Your task to perform on an android device: turn smart compose on in the gmail app Image 0: 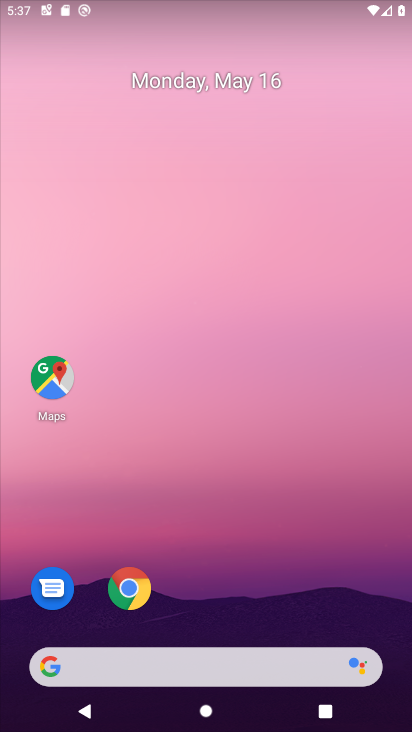
Step 0: drag from (273, 564) to (231, 174)
Your task to perform on an android device: turn smart compose on in the gmail app Image 1: 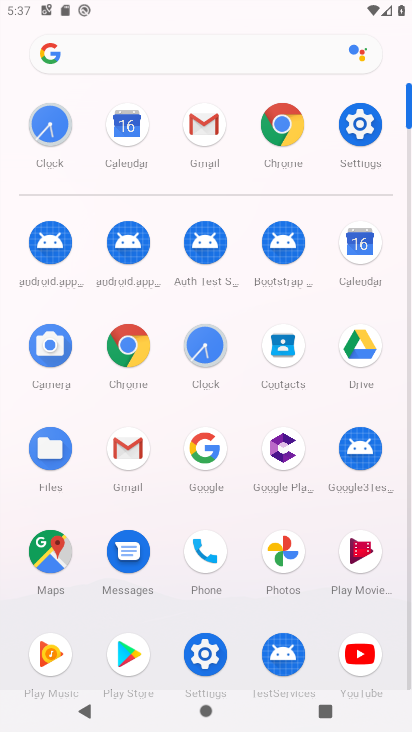
Step 1: click (136, 432)
Your task to perform on an android device: turn smart compose on in the gmail app Image 2: 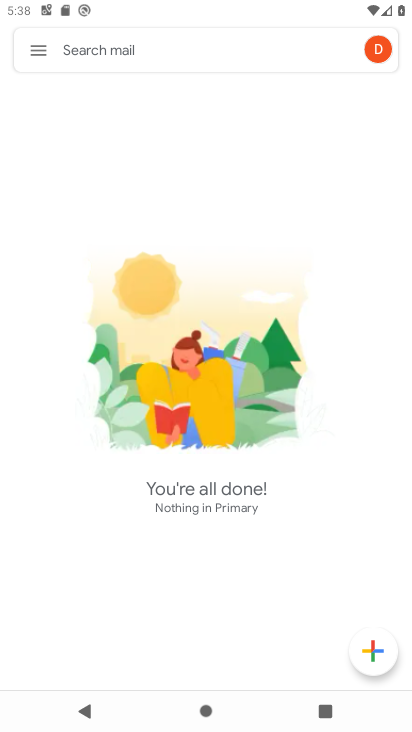
Step 2: click (36, 43)
Your task to perform on an android device: turn smart compose on in the gmail app Image 3: 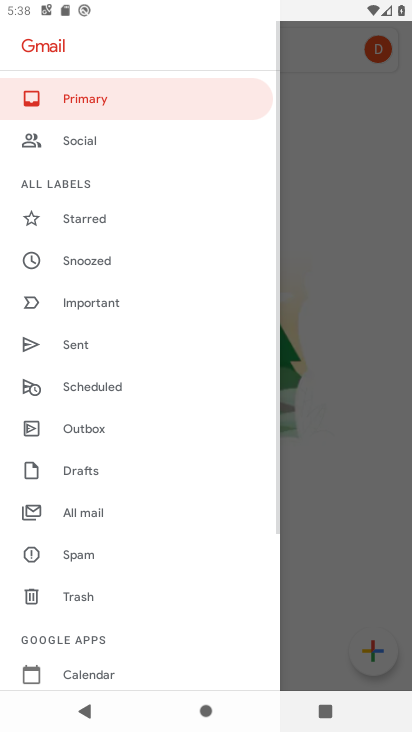
Step 3: drag from (127, 644) to (150, 284)
Your task to perform on an android device: turn smart compose on in the gmail app Image 4: 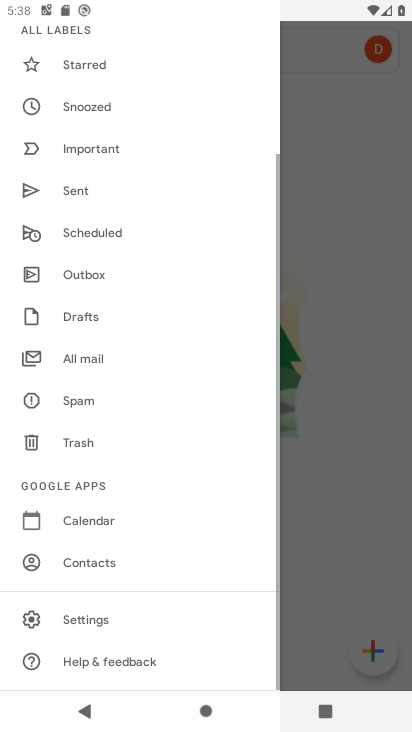
Step 4: click (99, 609)
Your task to perform on an android device: turn smart compose on in the gmail app Image 5: 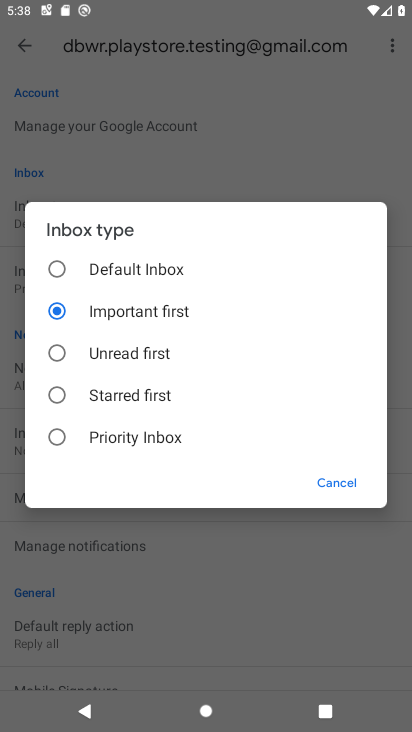
Step 5: click (273, 154)
Your task to perform on an android device: turn smart compose on in the gmail app Image 6: 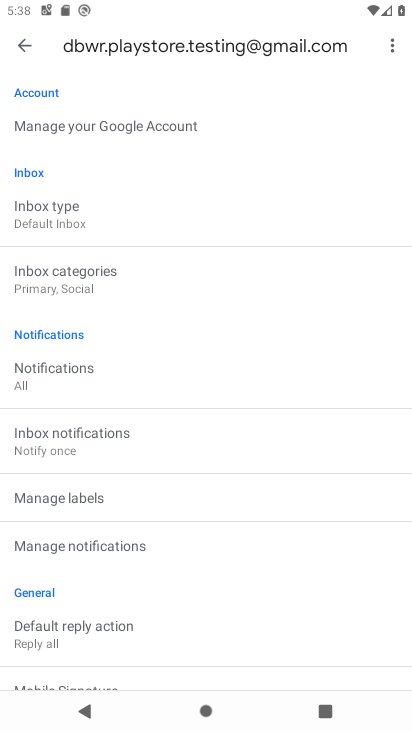
Step 6: task complete